Your task to perform on an android device: empty trash in the gmail app Image 0: 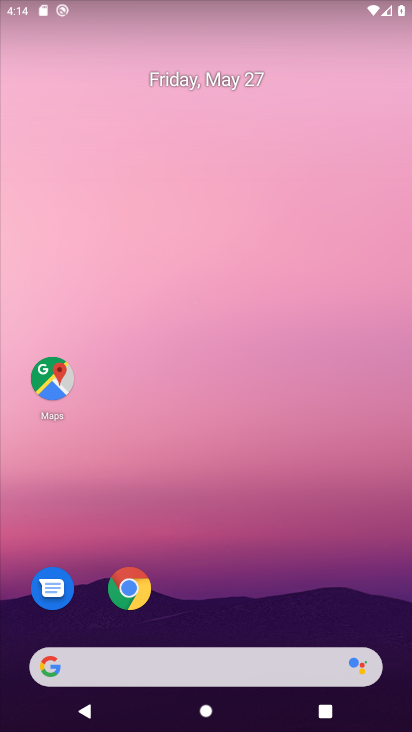
Step 0: drag from (271, 583) to (267, 167)
Your task to perform on an android device: empty trash in the gmail app Image 1: 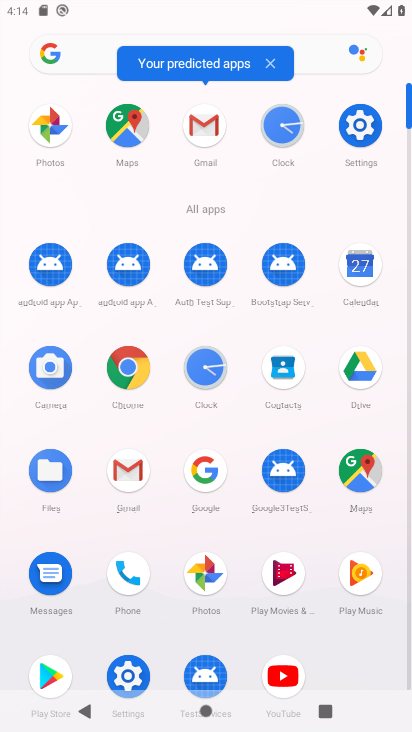
Step 1: click (210, 125)
Your task to perform on an android device: empty trash in the gmail app Image 2: 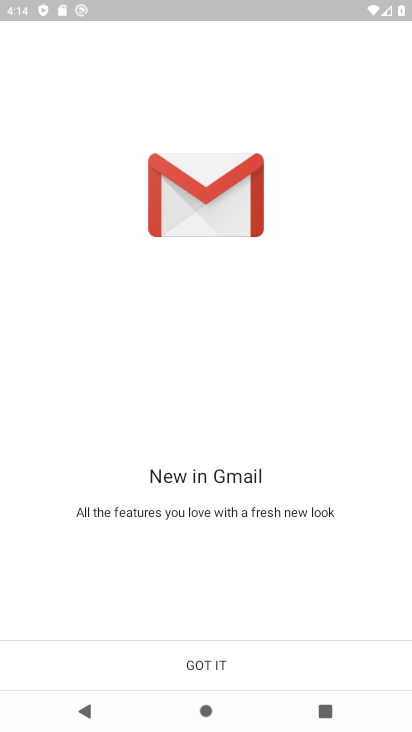
Step 2: click (226, 664)
Your task to perform on an android device: empty trash in the gmail app Image 3: 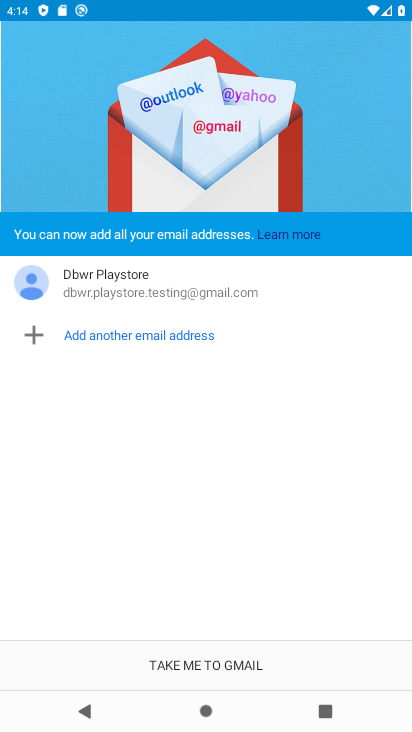
Step 3: click (235, 655)
Your task to perform on an android device: empty trash in the gmail app Image 4: 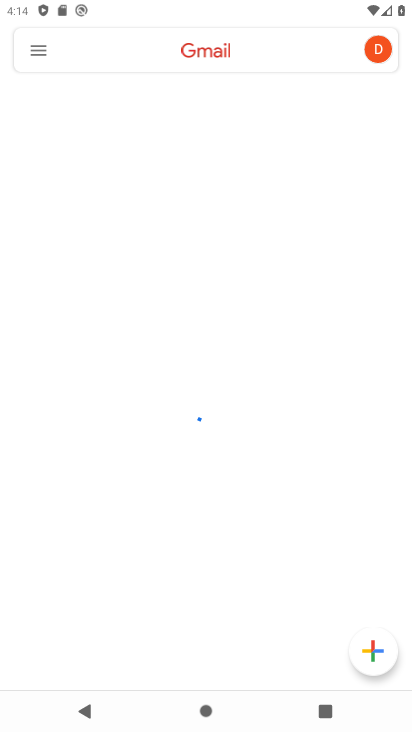
Step 4: click (41, 45)
Your task to perform on an android device: empty trash in the gmail app Image 5: 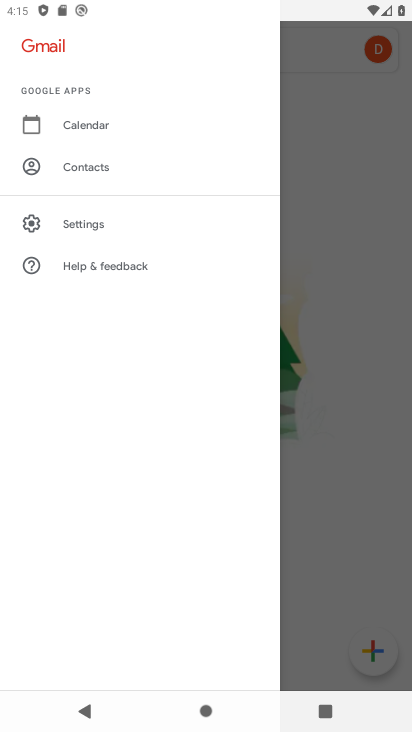
Step 5: click (307, 305)
Your task to perform on an android device: empty trash in the gmail app Image 6: 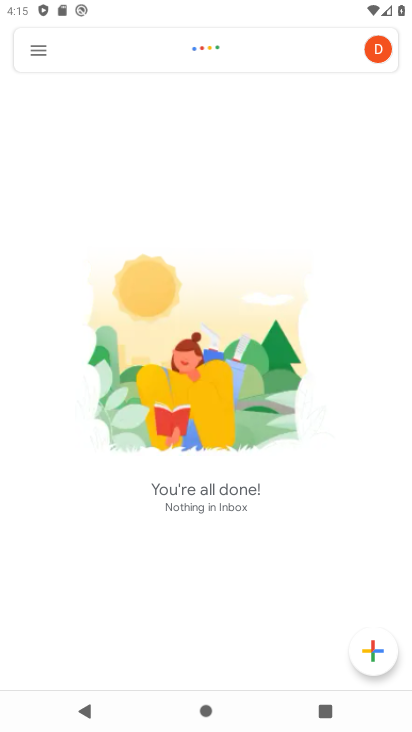
Step 6: click (30, 51)
Your task to perform on an android device: empty trash in the gmail app Image 7: 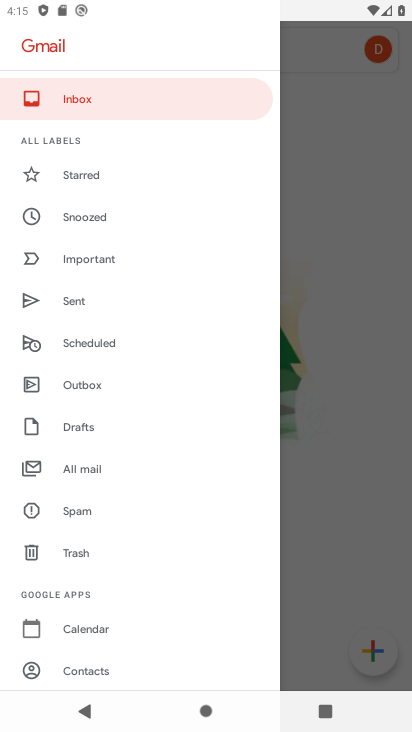
Step 7: click (84, 548)
Your task to perform on an android device: empty trash in the gmail app Image 8: 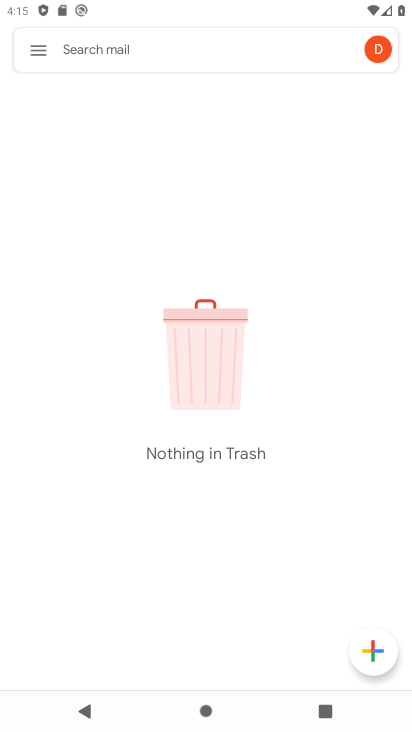
Step 8: task complete